Your task to perform on an android device: Do I have any events this weekend? Image 0: 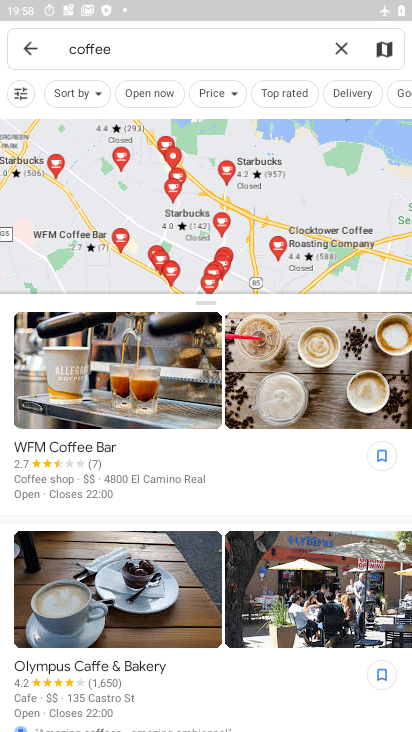
Step 0: press home button
Your task to perform on an android device: Do I have any events this weekend? Image 1: 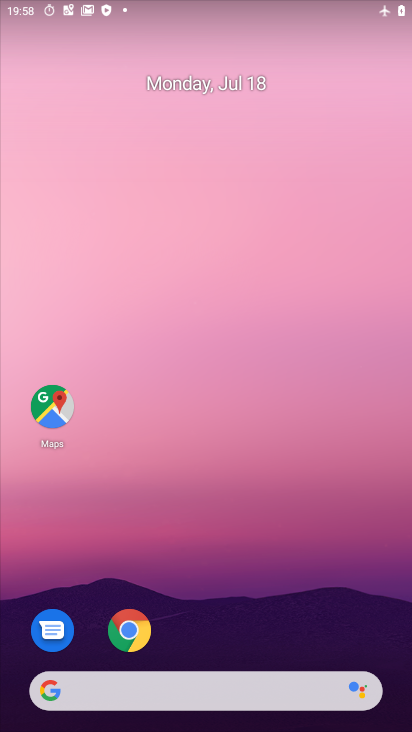
Step 1: drag from (283, 540) to (185, 31)
Your task to perform on an android device: Do I have any events this weekend? Image 2: 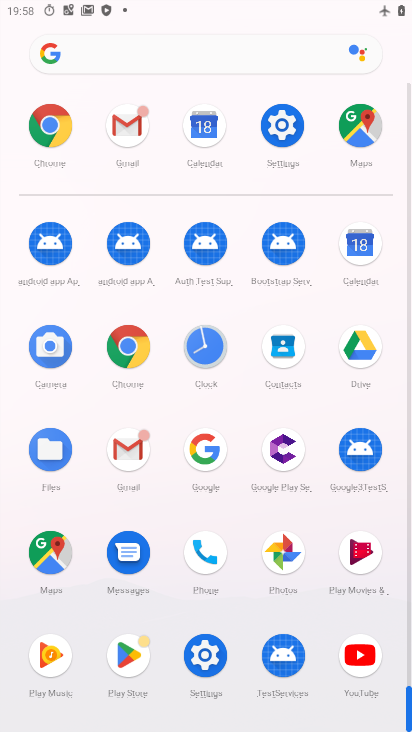
Step 2: click (357, 255)
Your task to perform on an android device: Do I have any events this weekend? Image 3: 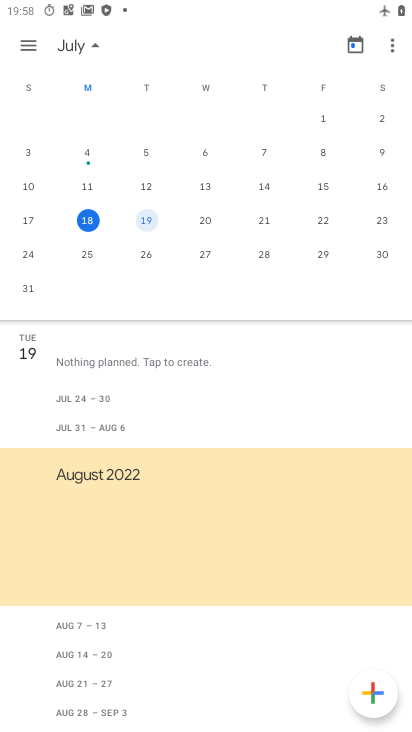
Step 3: task complete